Your task to perform on an android device: turn pop-ups on in chrome Image 0: 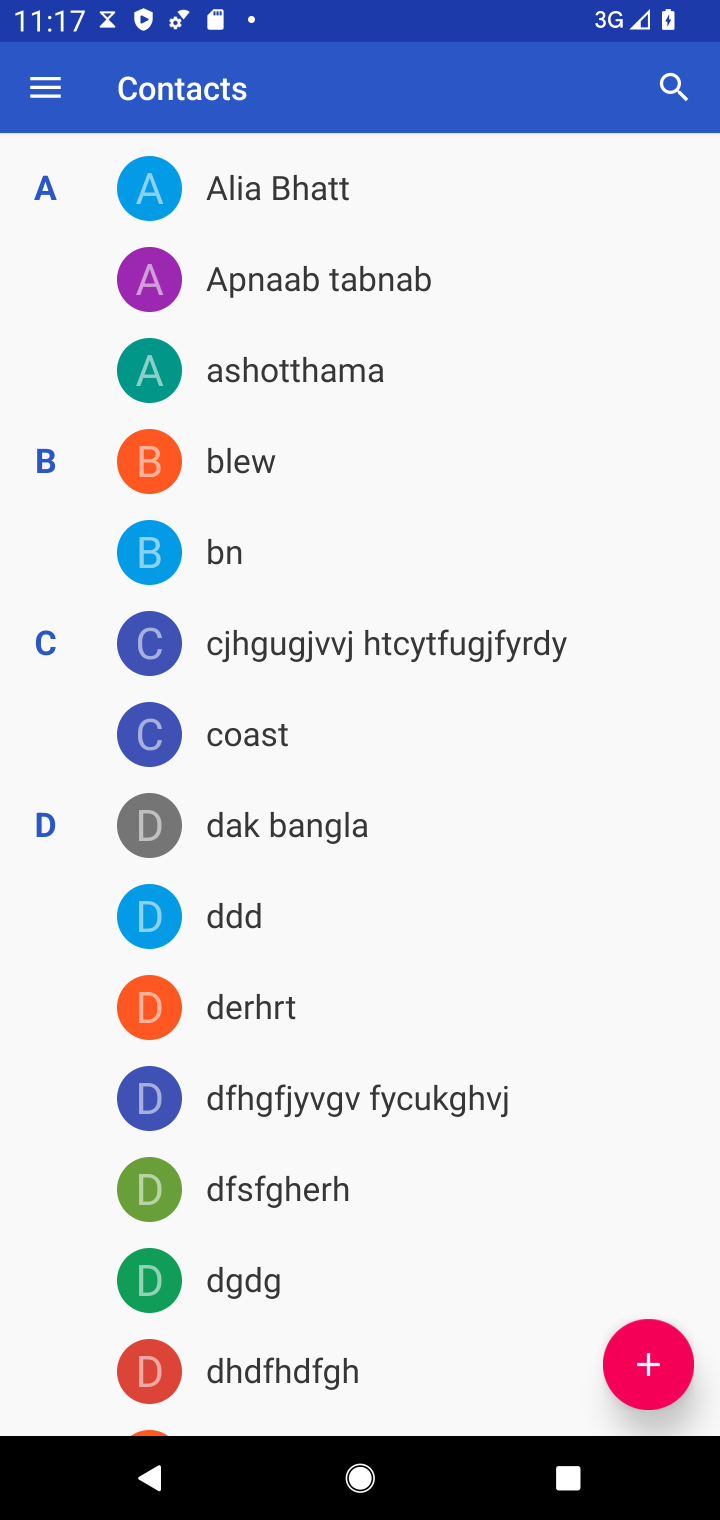
Step 0: press back button
Your task to perform on an android device: turn pop-ups on in chrome Image 1: 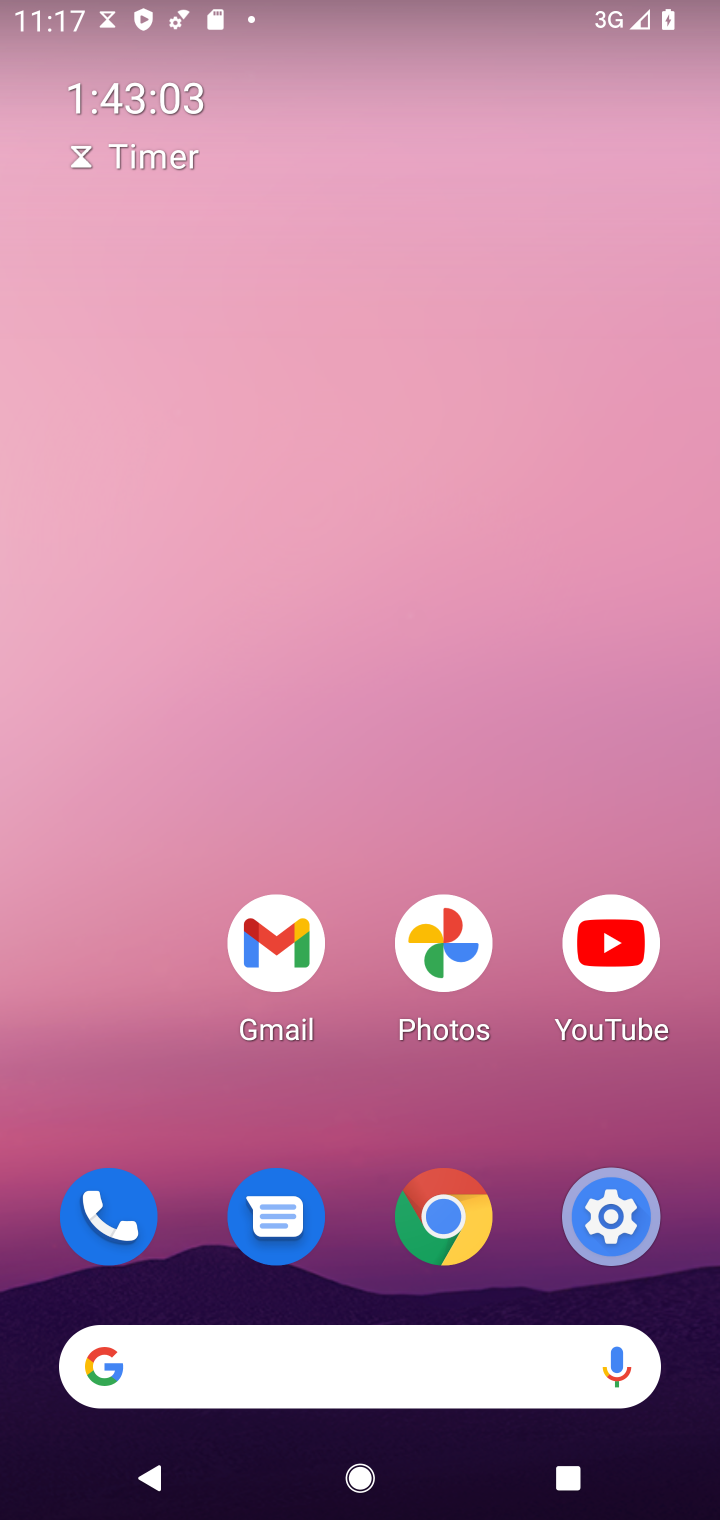
Step 1: click (452, 1224)
Your task to perform on an android device: turn pop-ups on in chrome Image 2: 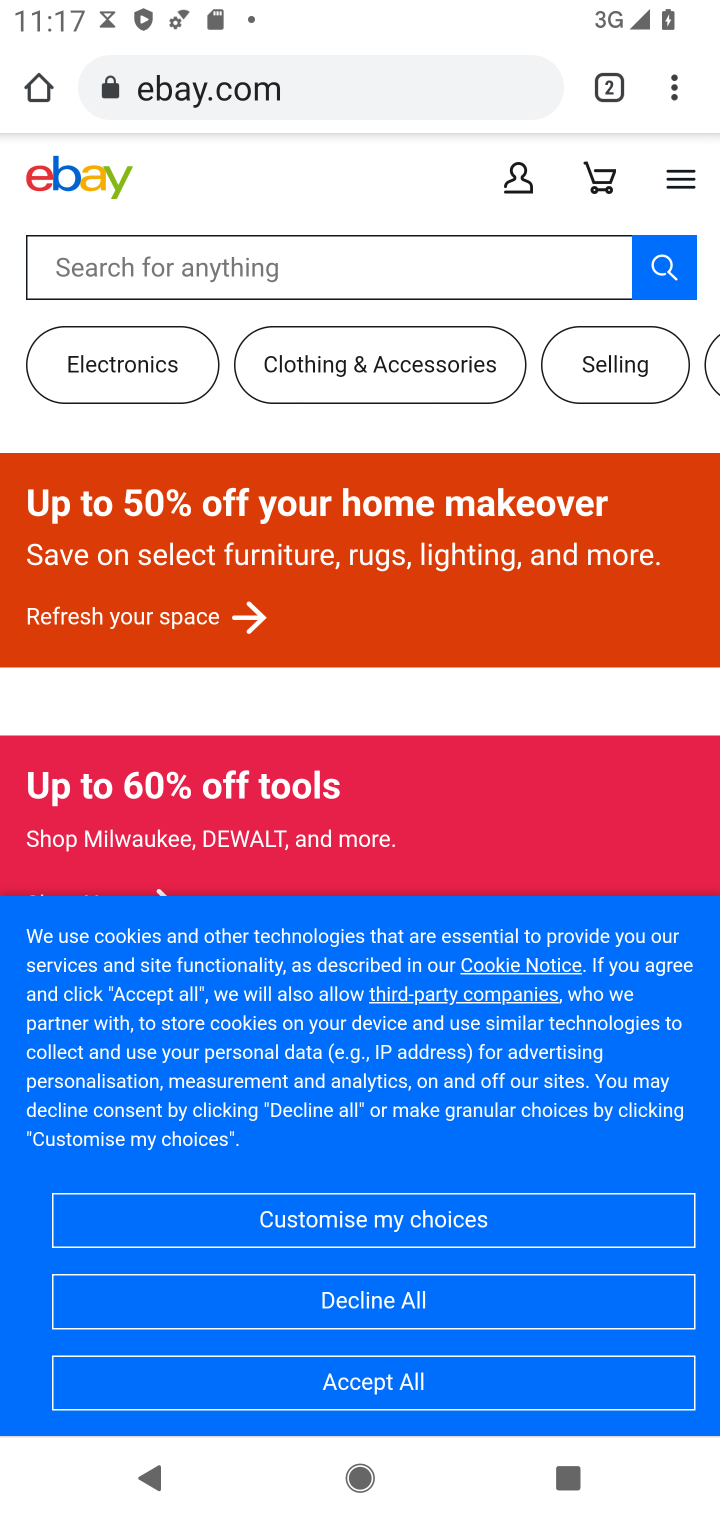
Step 2: drag from (676, 100) to (465, 1122)
Your task to perform on an android device: turn pop-ups on in chrome Image 3: 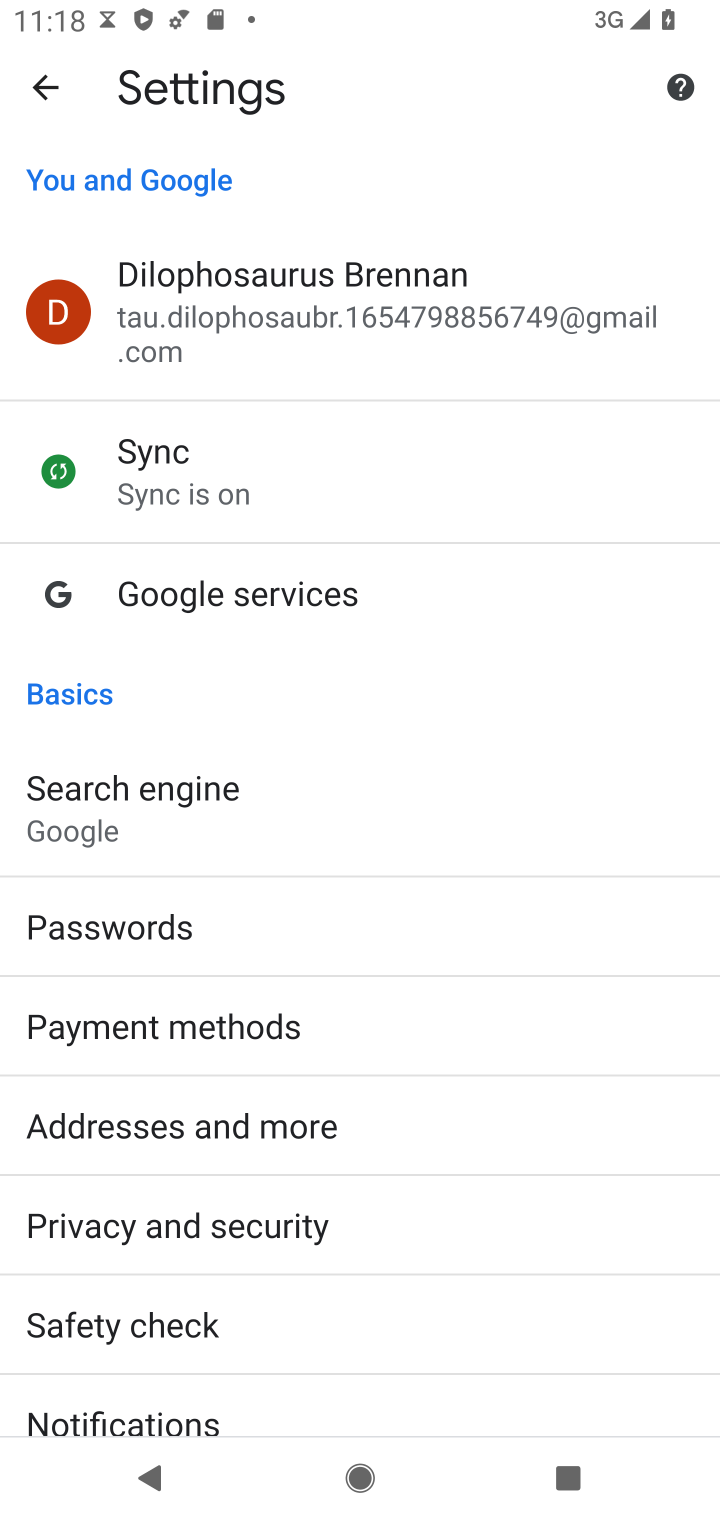
Step 3: drag from (180, 1365) to (359, 373)
Your task to perform on an android device: turn pop-ups on in chrome Image 4: 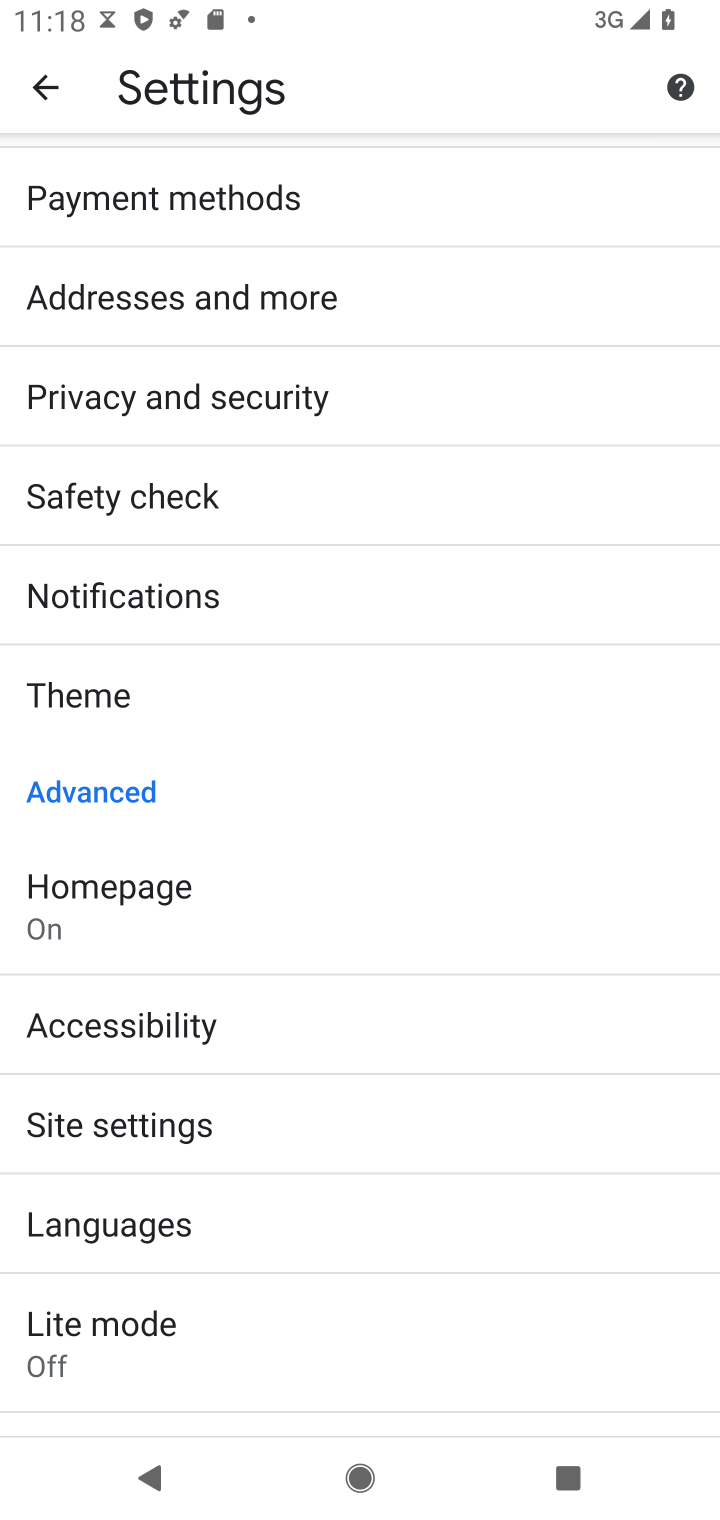
Step 4: click (151, 1128)
Your task to perform on an android device: turn pop-ups on in chrome Image 5: 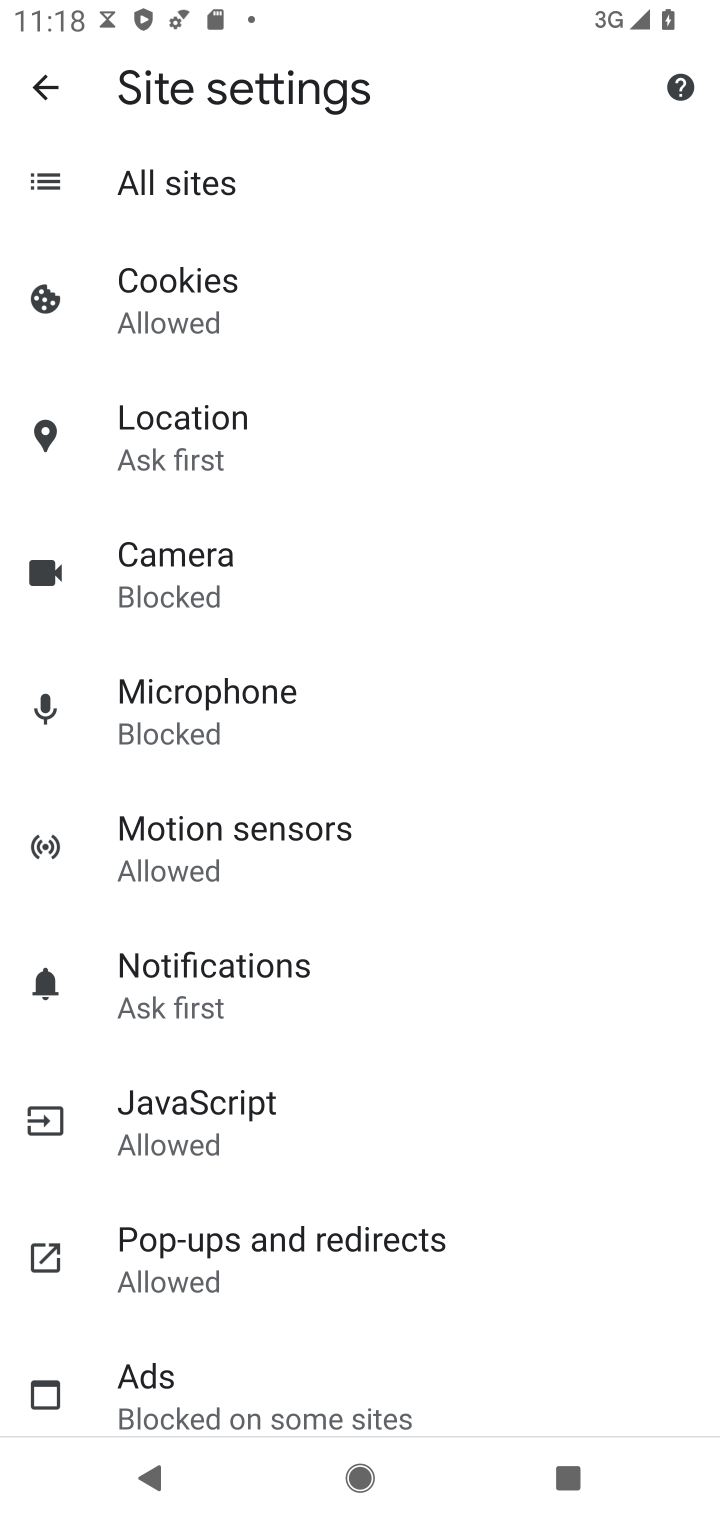
Step 5: click (190, 1255)
Your task to perform on an android device: turn pop-ups on in chrome Image 6: 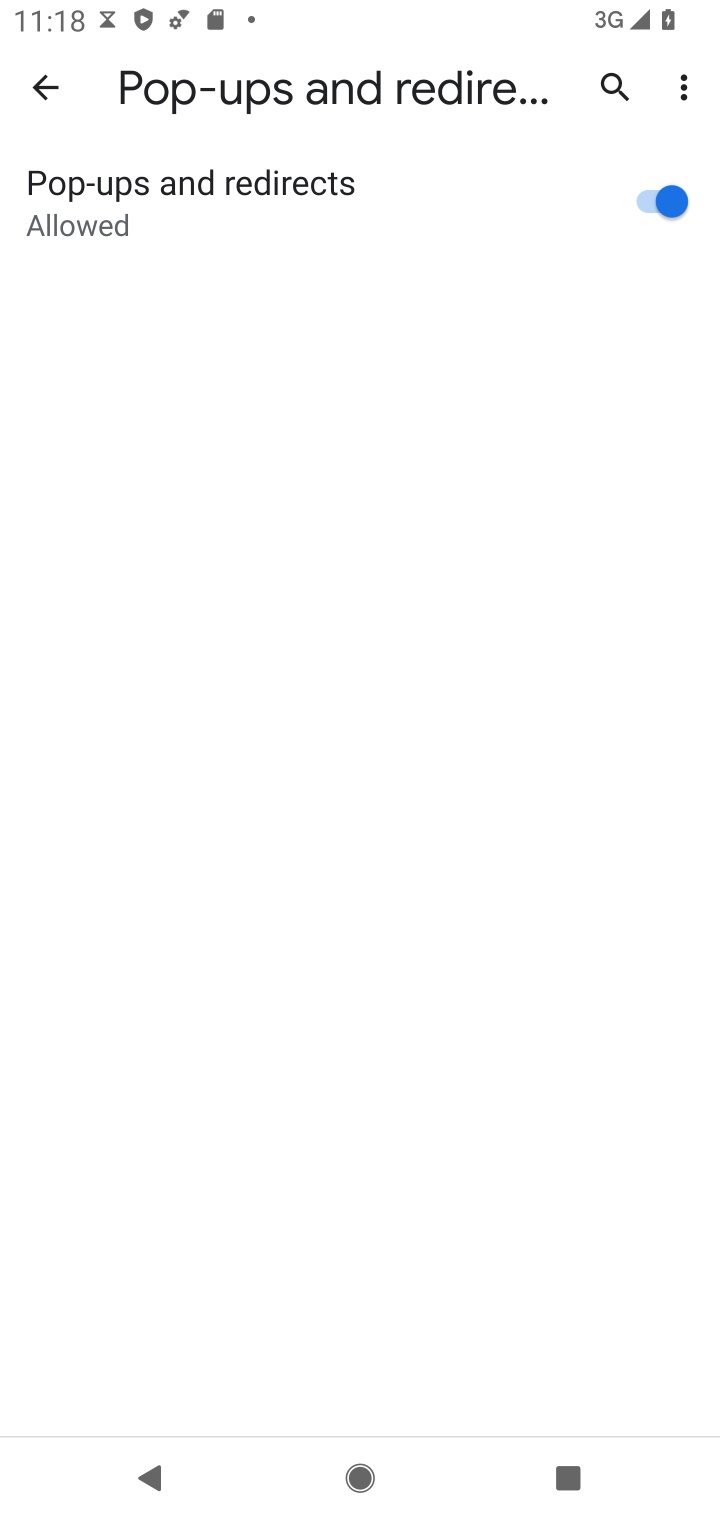
Step 6: task complete